Your task to perform on an android device: Open settings Image 0: 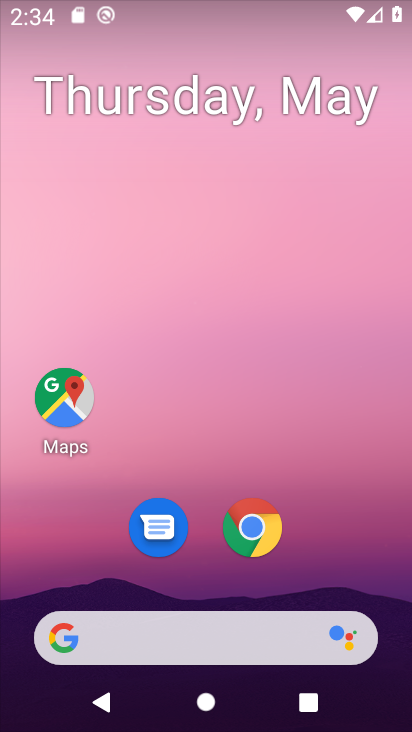
Step 0: drag from (324, 581) to (336, 17)
Your task to perform on an android device: Open settings Image 1: 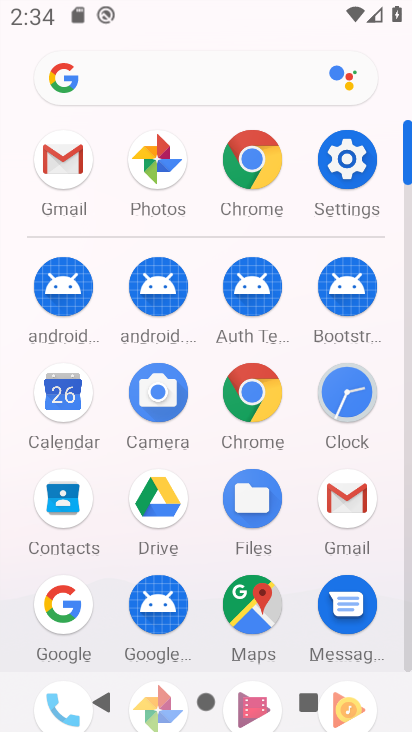
Step 1: click (358, 186)
Your task to perform on an android device: Open settings Image 2: 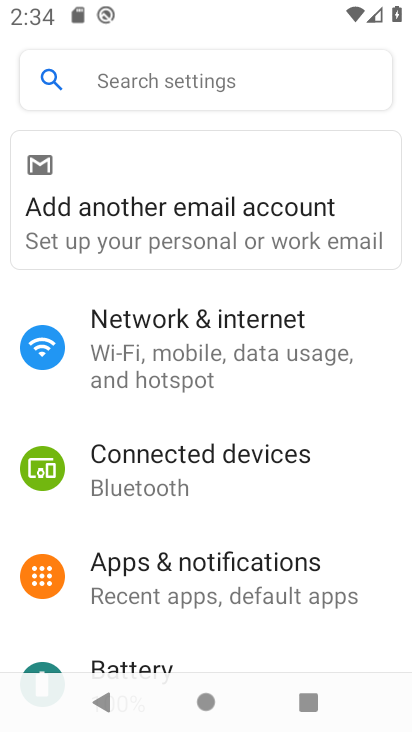
Step 2: task complete